Your task to perform on an android device: Open the calendar app, open the side menu, and click the "Day" option Image 0: 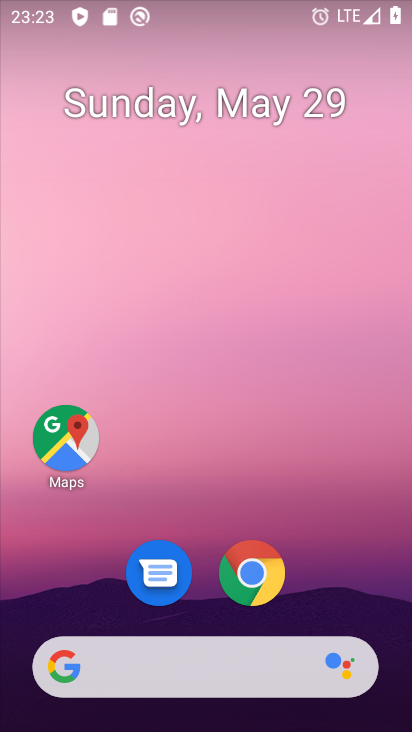
Step 0: drag from (341, 391) to (217, 22)
Your task to perform on an android device: Open the calendar app, open the side menu, and click the "Day" option Image 1: 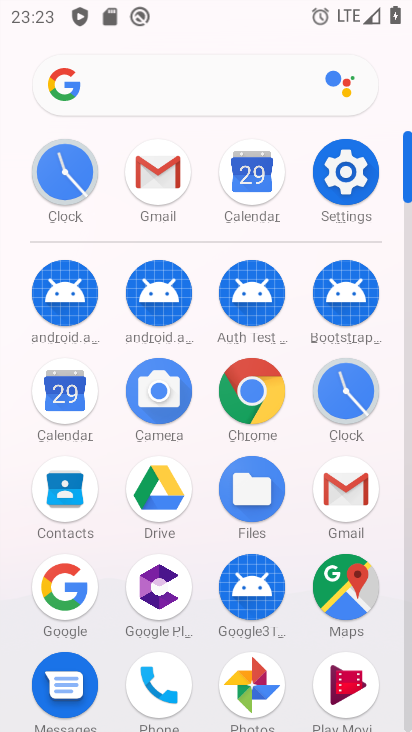
Step 1: click (259, 186)
Your task to perform on an android device: Open the calendar app, open the side menu, and click the "Day" option Image 2: 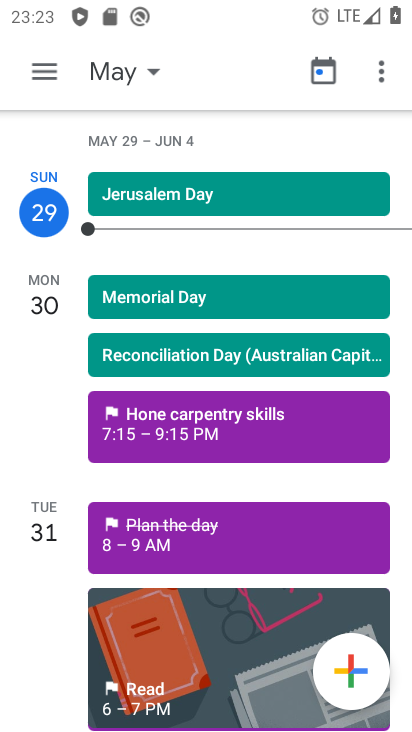
Step 2: click (45, 69)
Your task to perform on an android device: Open the calendar app, open the side menu, and click the "Day" option Image 3: 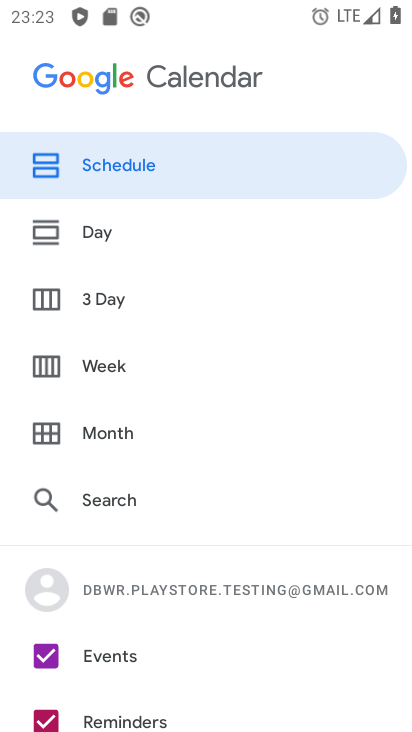
Step 3: click (116, 234)
Your task to perform on an android device: Open the calendar app, open the side menu, and click the "Day" option Image 4: 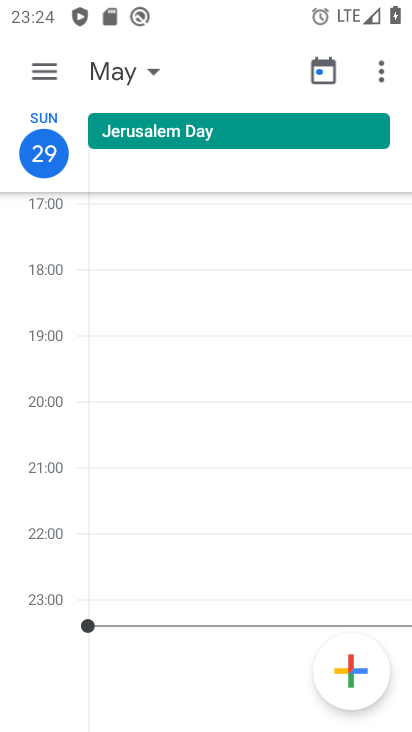
Step 4: task complete